Your task to perform on an android device: Add "amazon basics triple a" to the cart on walmart, then select checkout. Image 0: 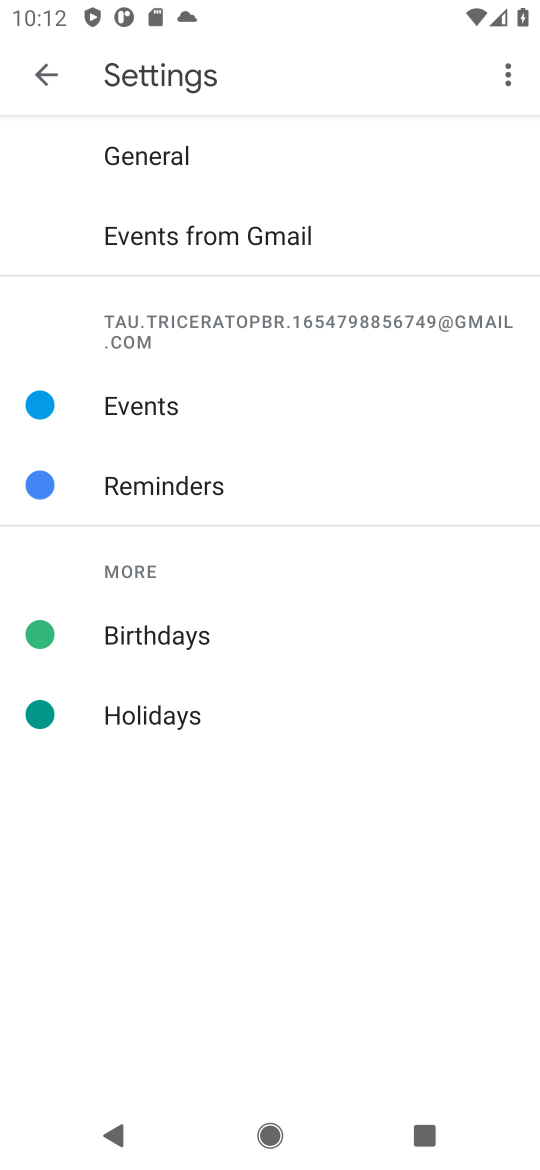
Step 0: press home button
Your task to perform on an android device: Add "amazon basics triple a" to the cart on walmart, then select checkout. Image 1: 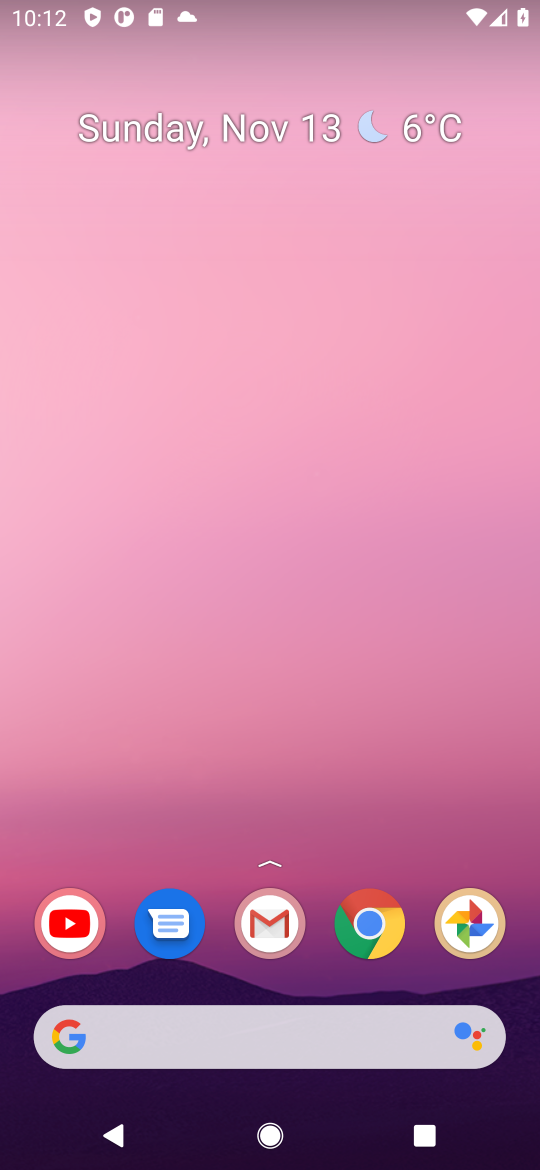
Step 1: click (378, 926)
Your task to perform on an android device: Add "amazon basics triple a" to the cart on walmart, then select checkout. Image 2: 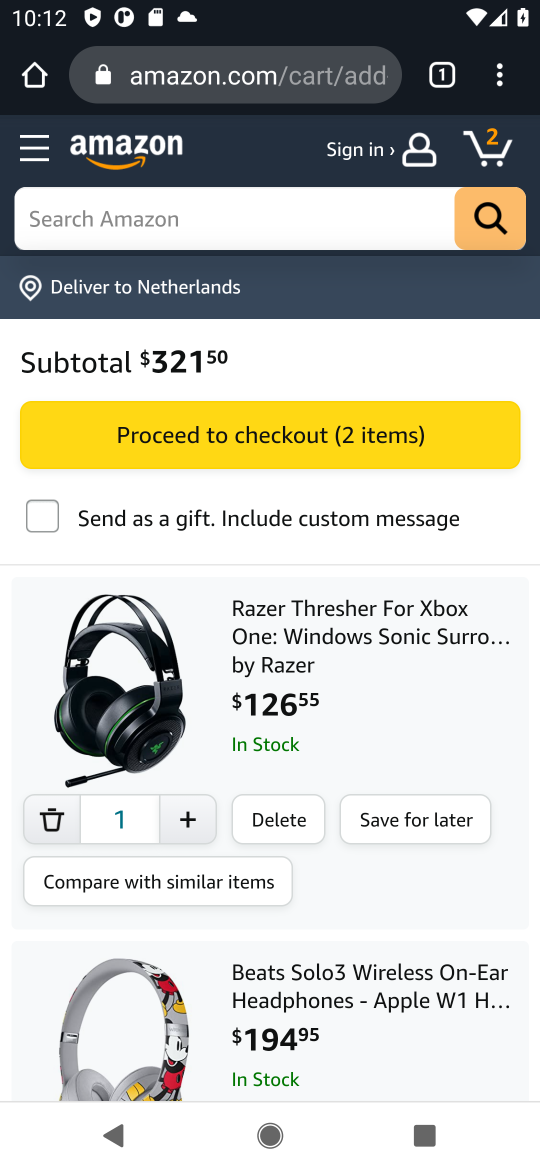
Step 2: click (336, 87)
Your task to perform on an android device: Add "amazon basics triple a" to the cart on walmart, then select checkout. Image 3: 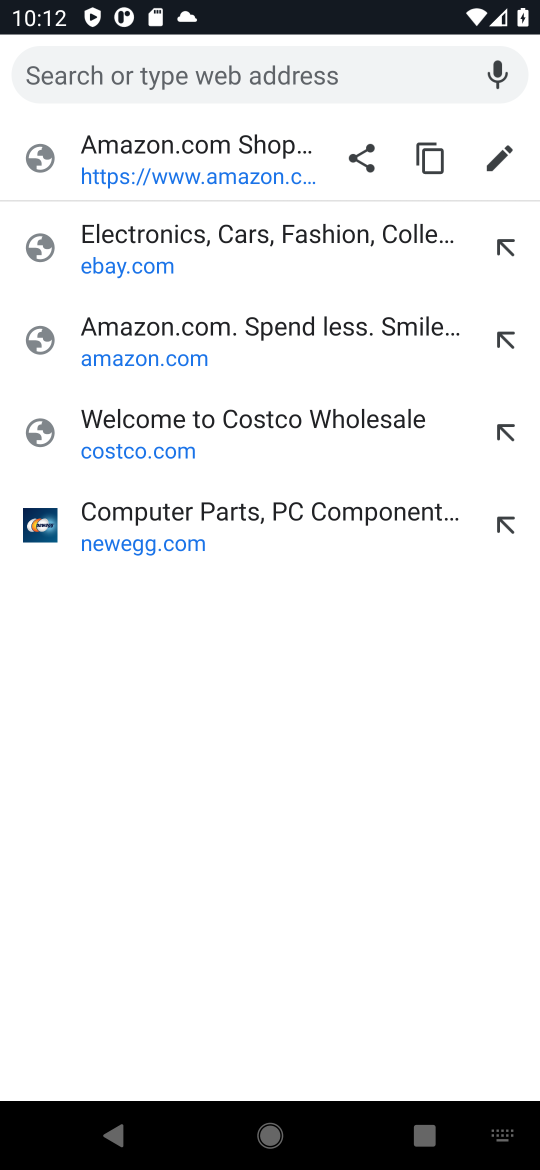
Step 3: type "walmart"
Your task to perform on an android device: Add "amazon basics triple a" to the cart on walmart, then select checkout. Image 4: 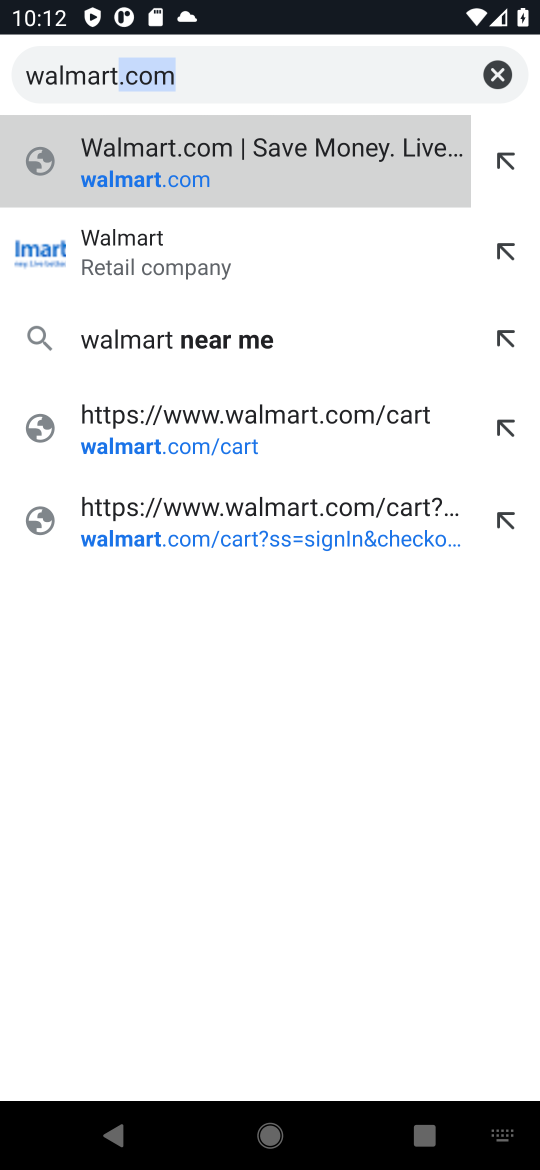
Step 4: press enter
Your task to perform on an android device: Add "amazon basics triple a" to the cart on walmart, then select checkout. Image 5: 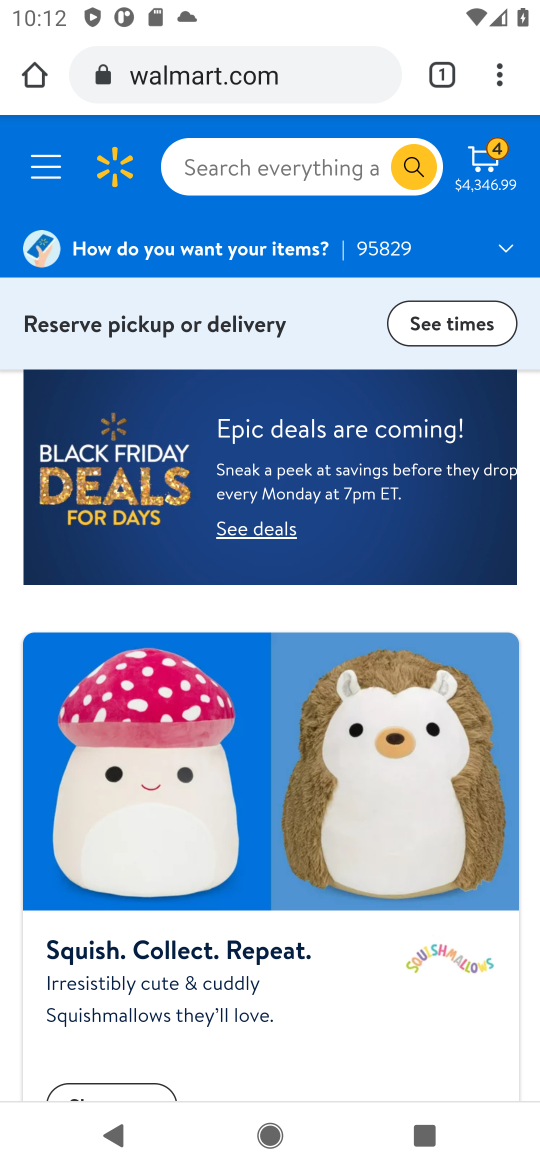
Step 5: click (254, 144)
Your task to perform on an android device: Add "amazon basics triple a" to the cart on walmart, then select checkout. Image 6: 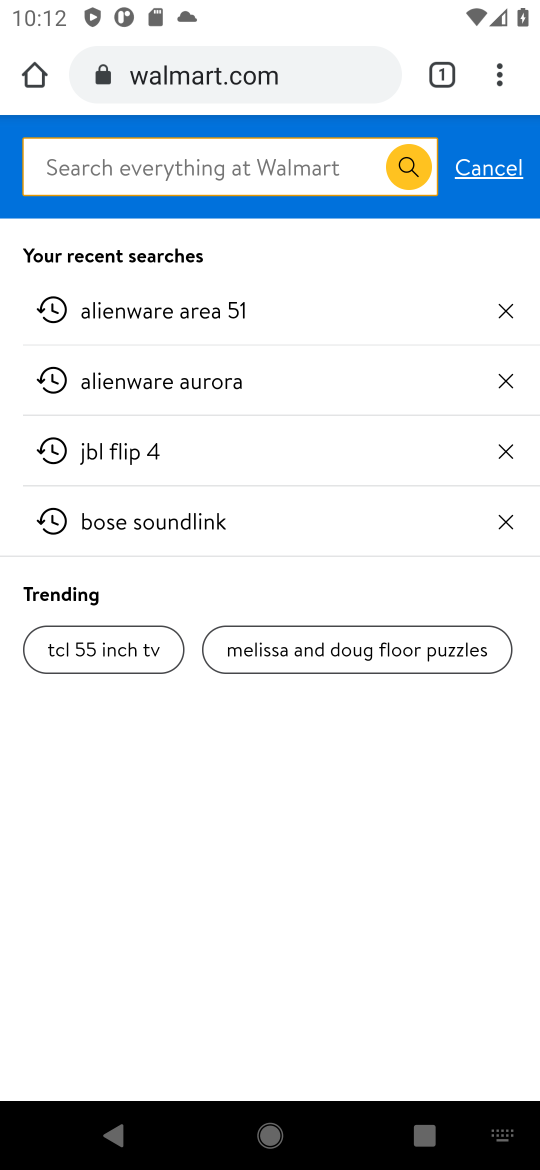
Step 6: type "amazon basics triple a"
Your task to perform on an android device: Add "amazon basics triple a" to the cart on walmart, then select checkout. Image 7: 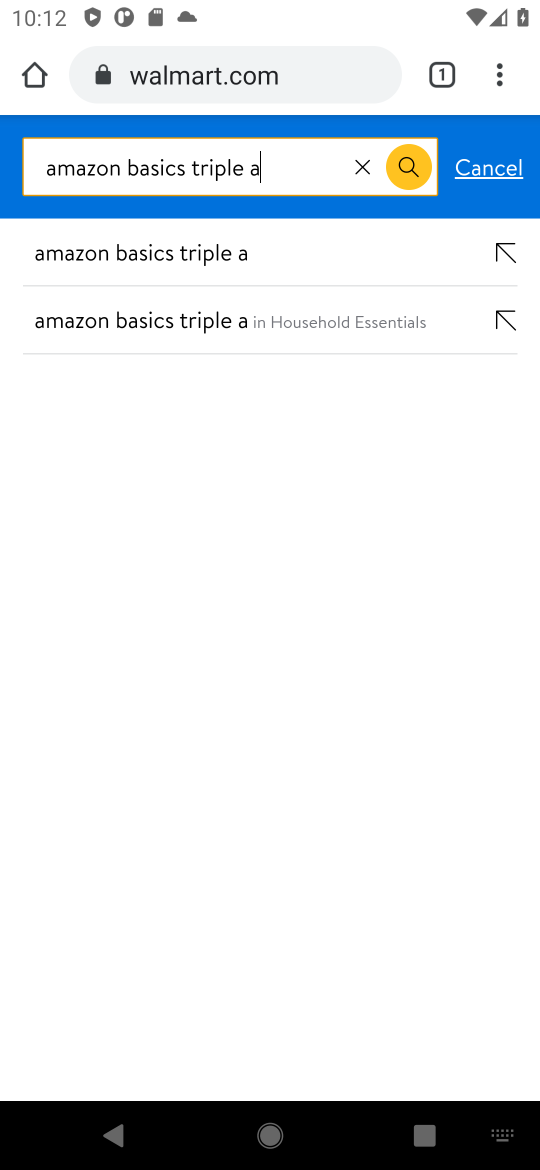
Step 7: press enter
Your task to perform on an android device: Add "amazon basics triple a" to the cart on walmart, then select checkout. Image 8: 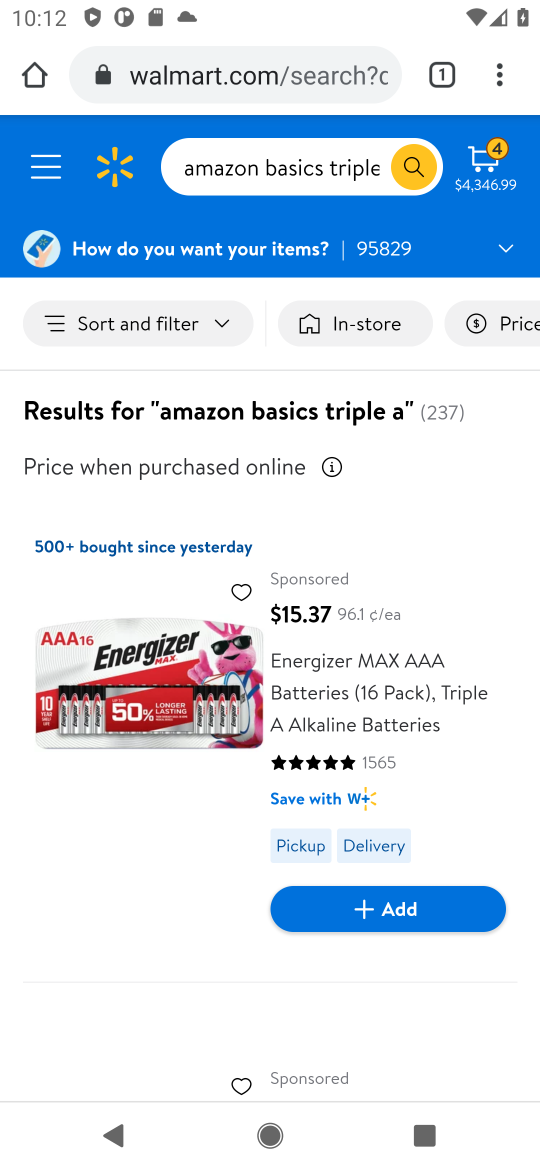
Step 8: drag from (90, 841) to (169, 414)
Your task to perform on an android device: Add "amazon basics triple a" to the cart on walmart, then select checkout. Image 9: 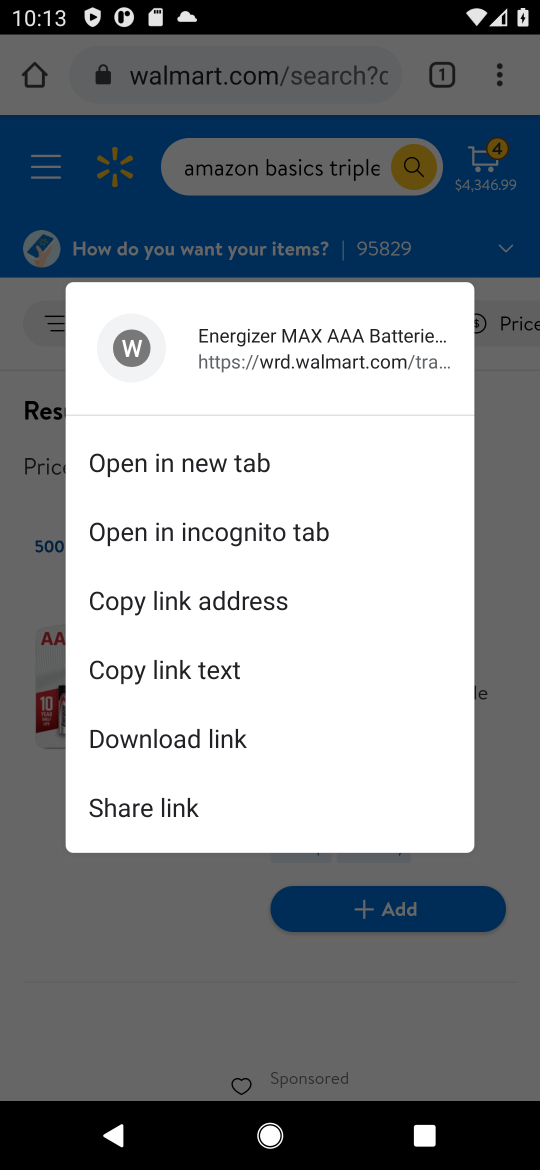
Step 9: click (520, 749)
Your task to perform on an android device: Add "amazon basics triple a" to the cart on walmart, then select checkout. Image 10: 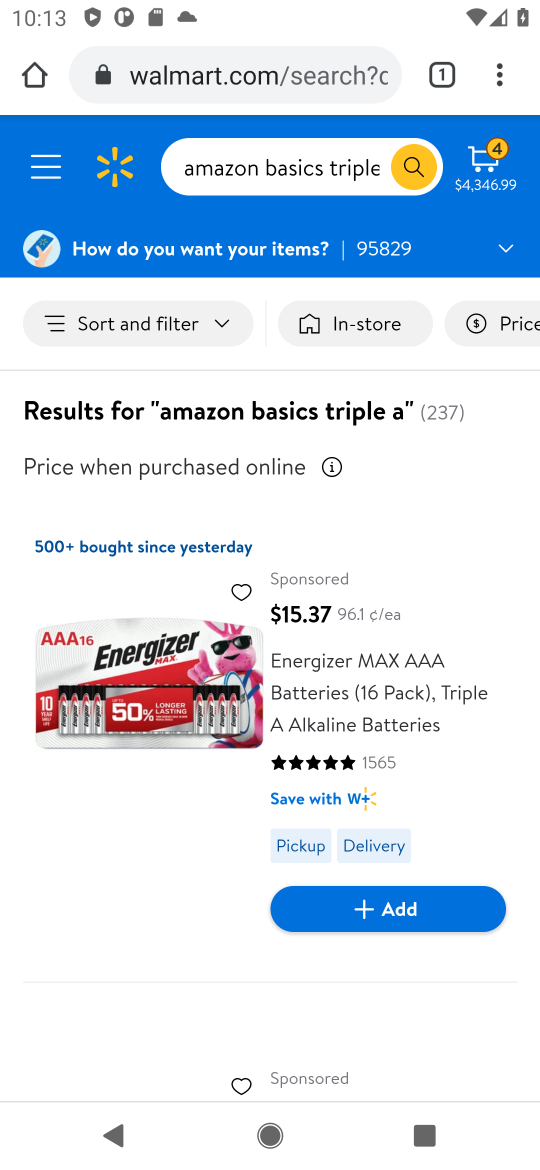
Step 10: task complete